Your task to perform on an android device: What's on the menu at Starbucks? Image 0: 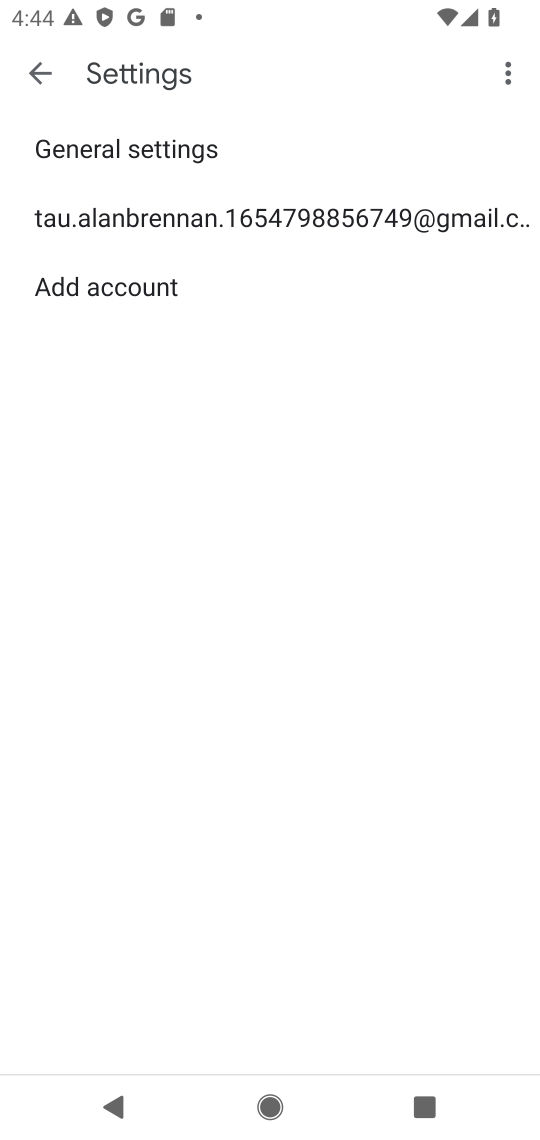
Step 0: press home button
Your task to perform on an android device: What's on the menu at Starbucks? Image 1: 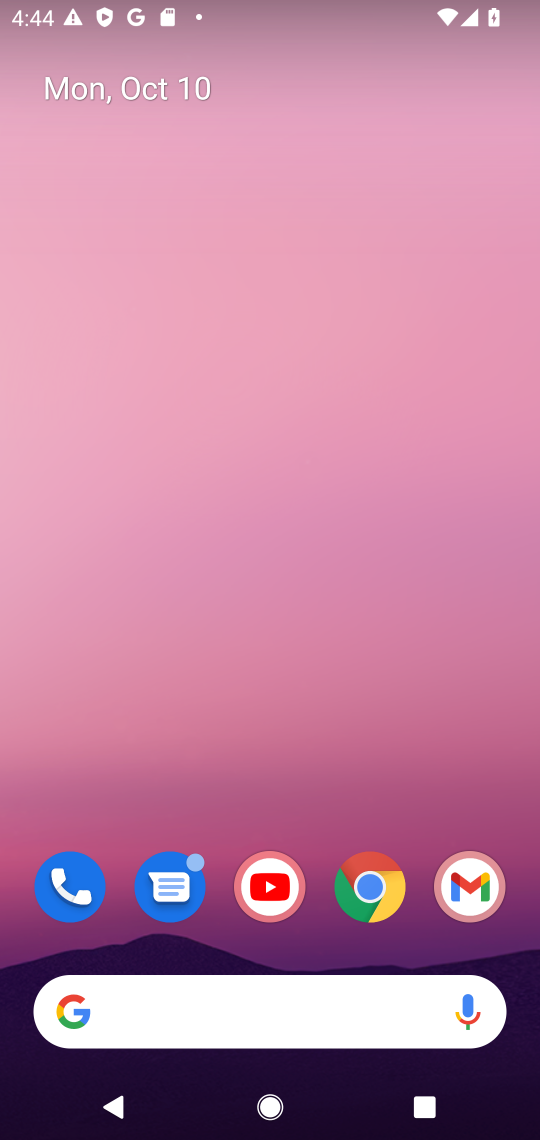
Step 1: click (369, 868)
Your task to perform on an android device: What's on the menu at Starbucks? Image 2: 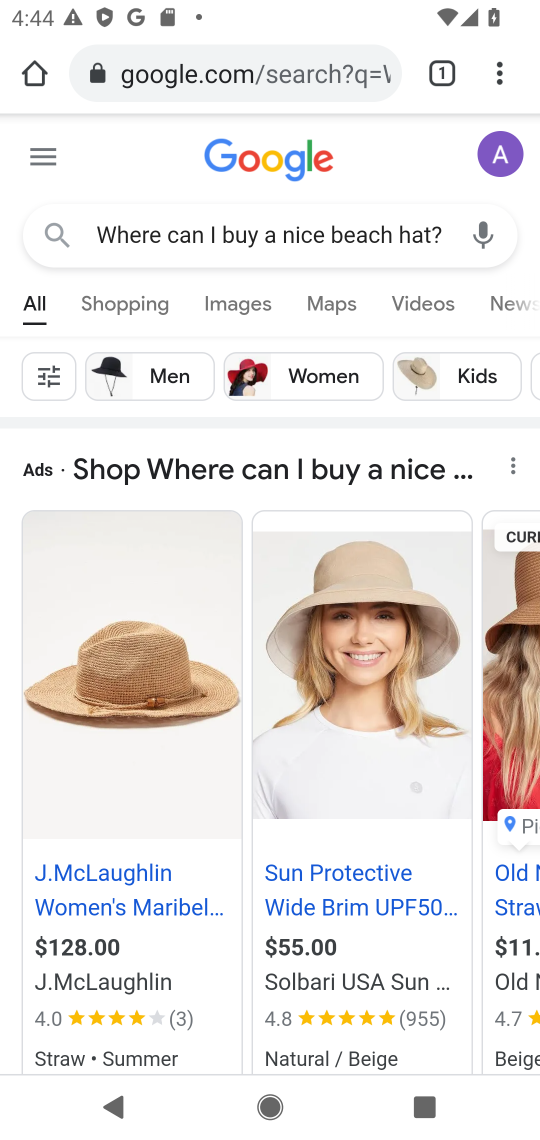
Step 2: click (281, 58)
Your task to perform on an android device: What's on the menu at Starbucks? Image 3: 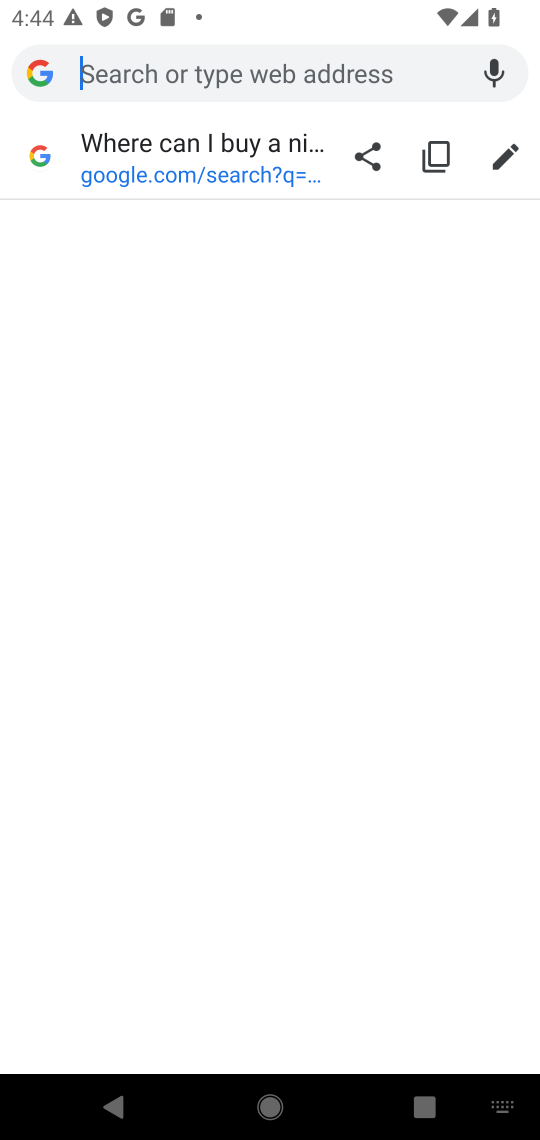
Step 3: type "What's on the menu at Starbucks ?"
Your task to perform on an android device: What's on the menu at Starbucks? Image 4: 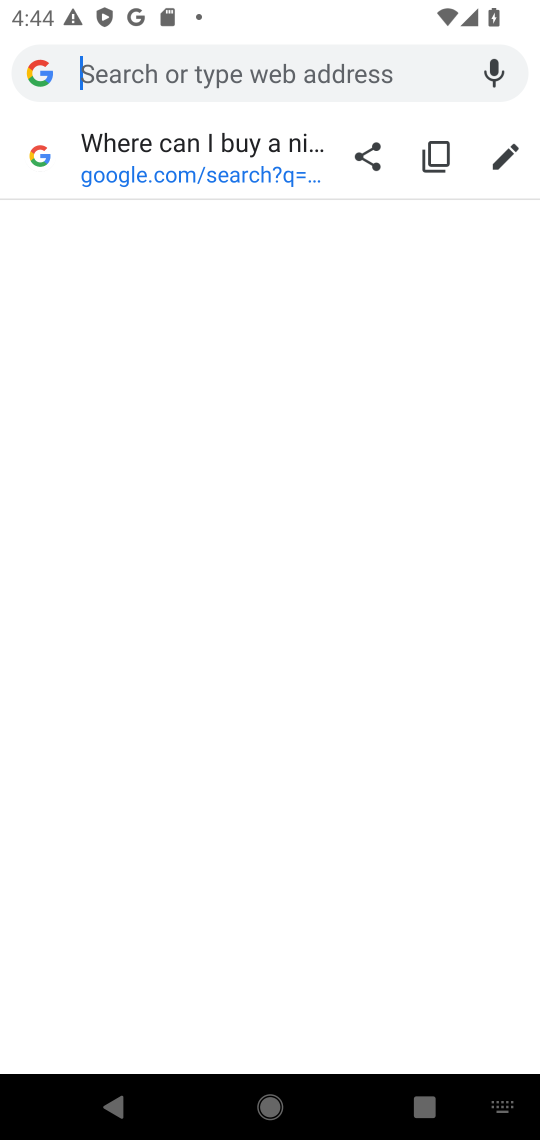
Step 4: click (288, 71)
Your task to perform on an android device: What's on the menu at Starbucks? Image 5: 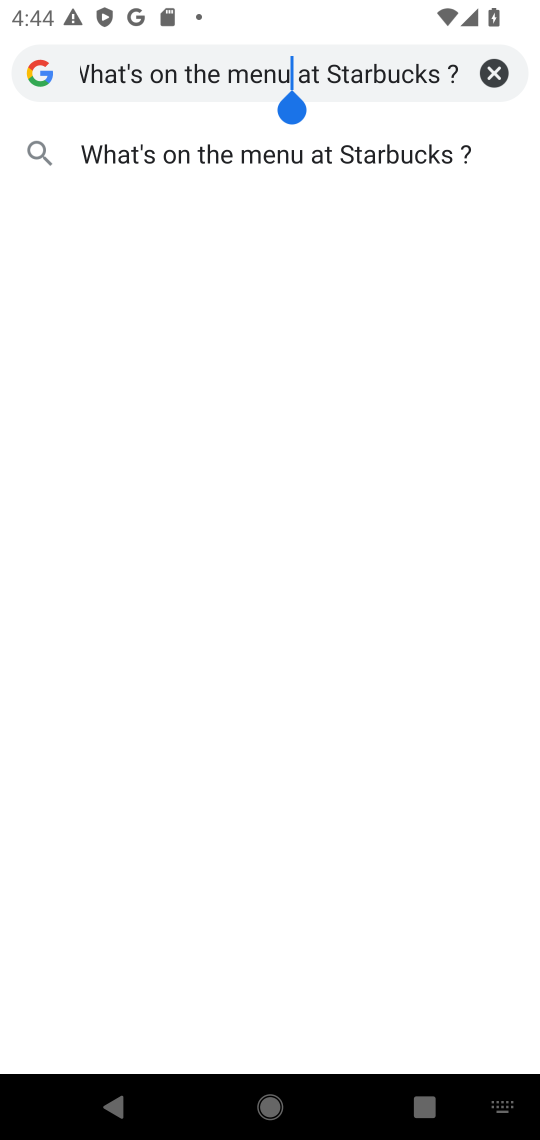
Step 5: click (414, 159)
Your task to perform on an android device: What's on the menu at Starbucks? Image 6: 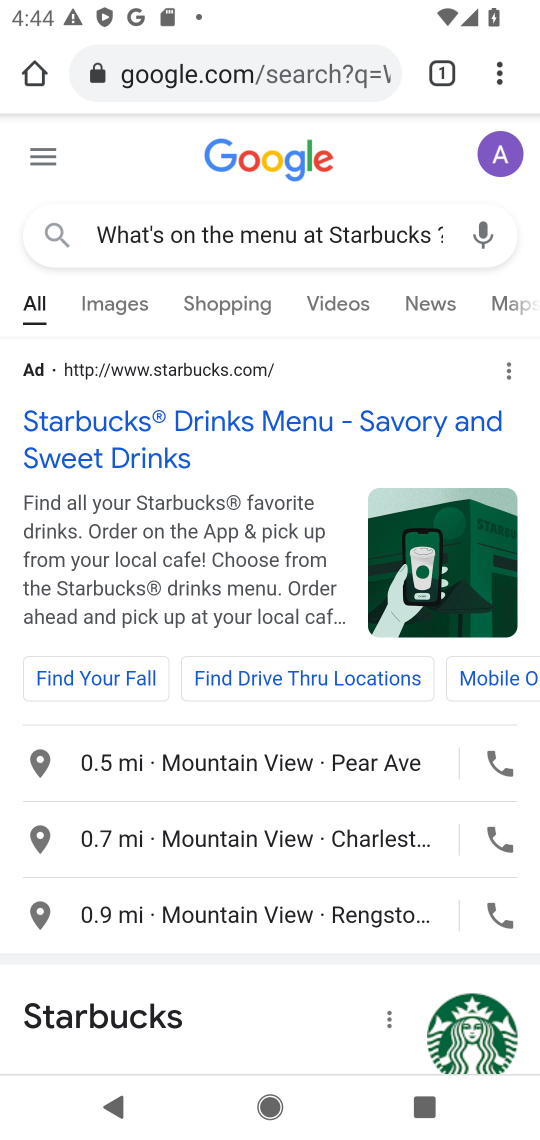
Step 6: click (178, 427)
Your task to perform on an android device: What's on the menu at Starbucks? Image 7: 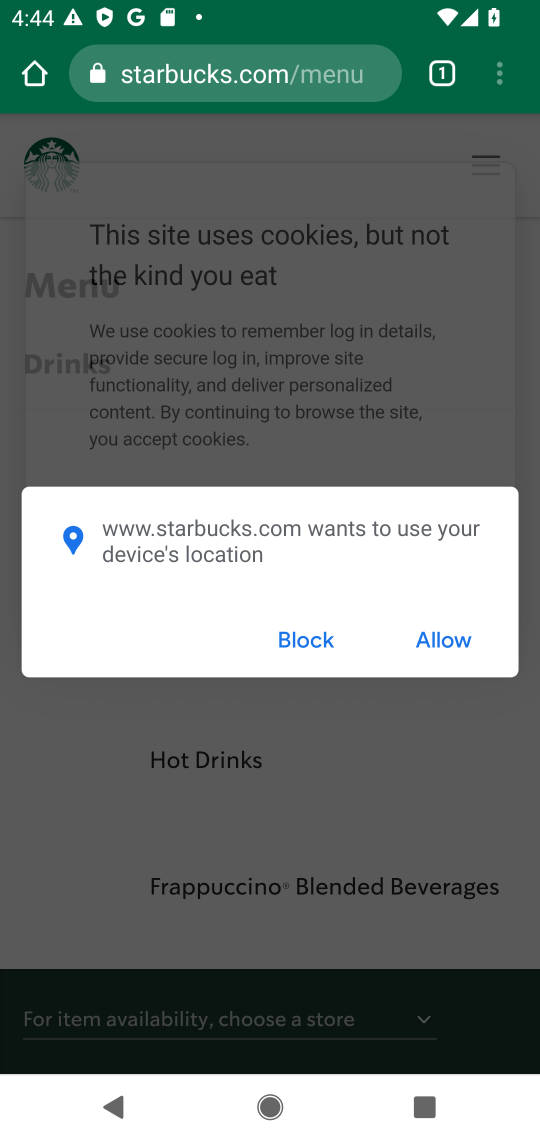
Step 7: click (452, 639)
Your task to perform on an android device: What's on the menu at Starbucks? Image 8: 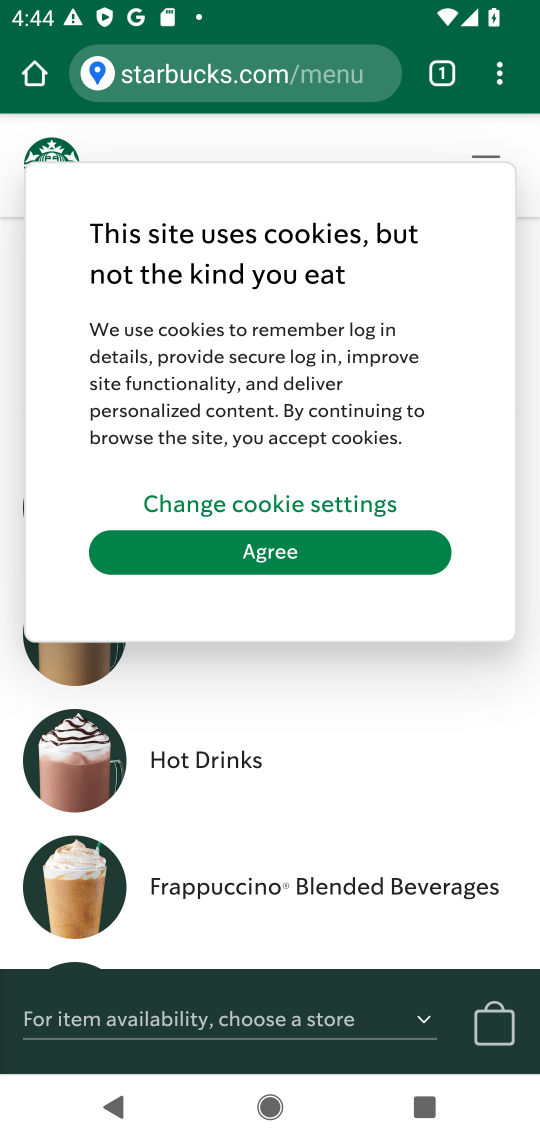
Step 8: click (349, 544)
Your task to perform on an android device: What's on the menu at Starbucks? Image 9: 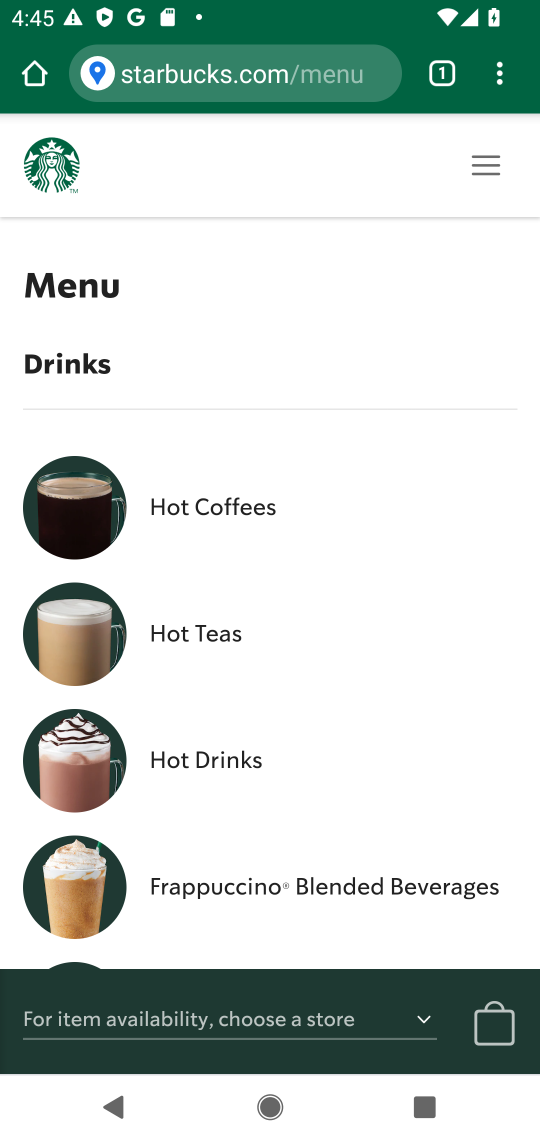
Step 9: drag from (369, 792) to (237, 415)
Your task to perform on an android device: What's on the menu at Starbucks? Image 10: 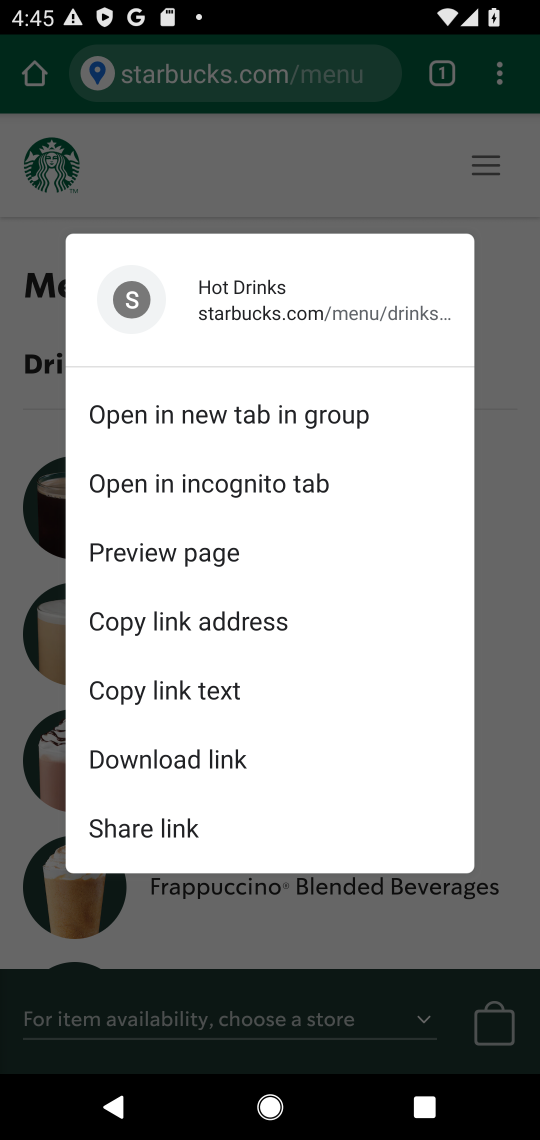
Step 10: click (5, 573)
Your task to perform on an android device: What's on the menu at Starbucks? Image 11: 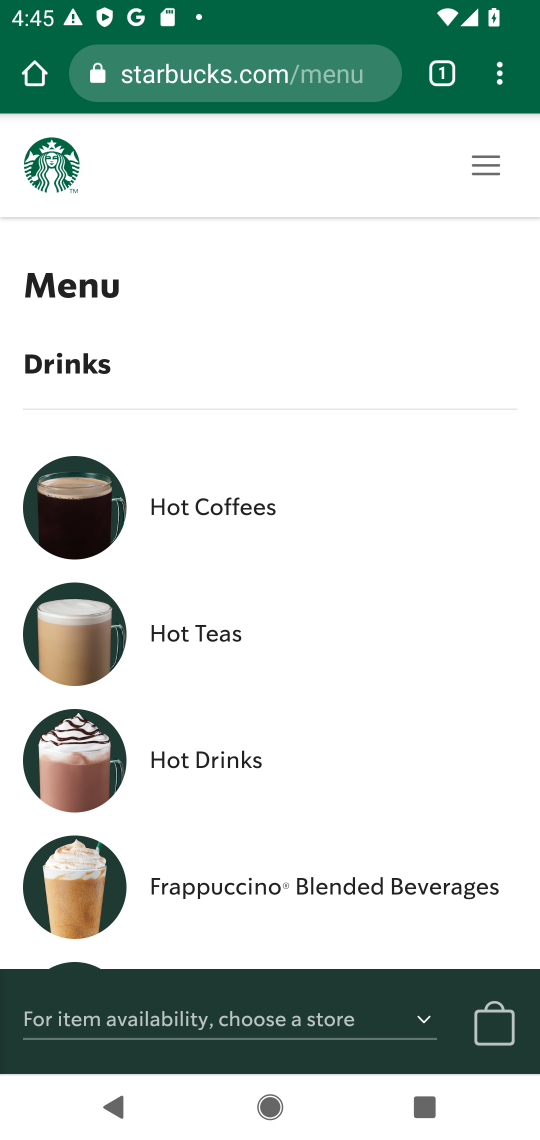
Step 11: drag from (449, 910) to (159, 251)
Your task to perform on an android device: What's on the menu at Starbucks? Image 12: 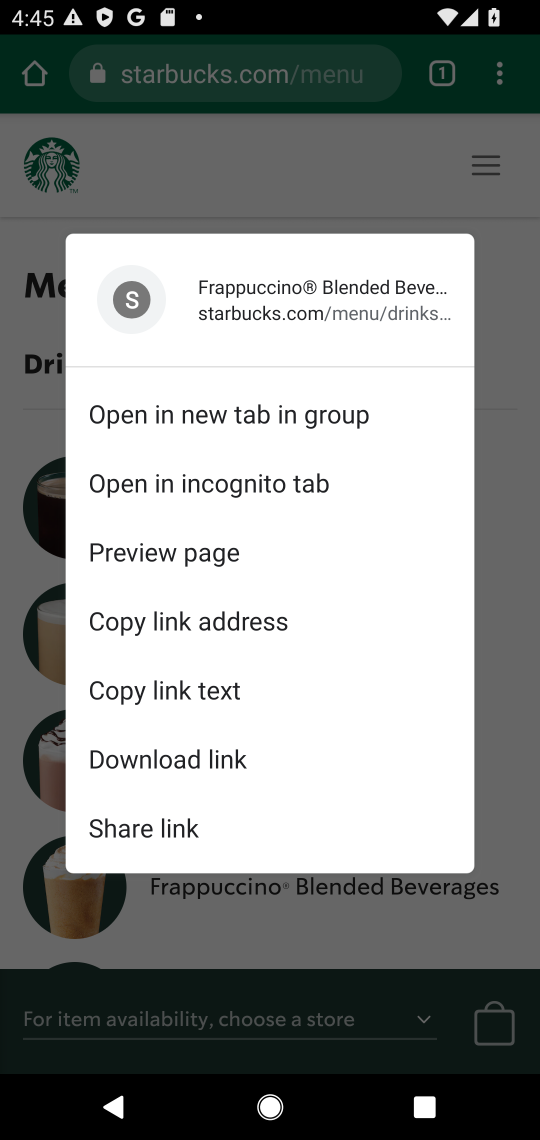
Step 12: click (159, 251)
Your task to perform on an android device: What's on the menu at Starbucks? Image 13: 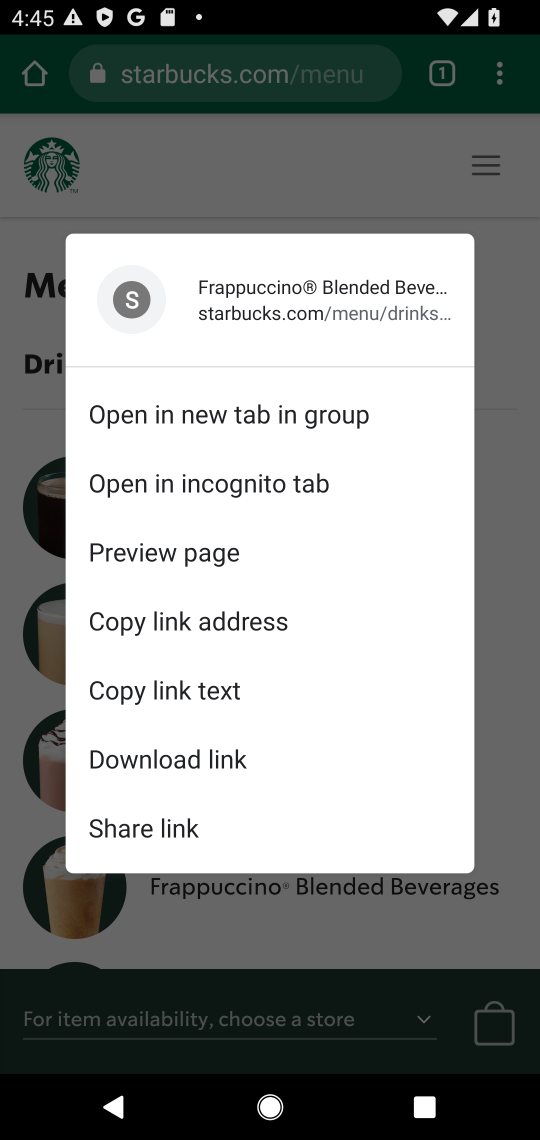
Step 13: click (517, 806)
Your task to perform on an android device: What's on the menu at Starbucks? Image 14: 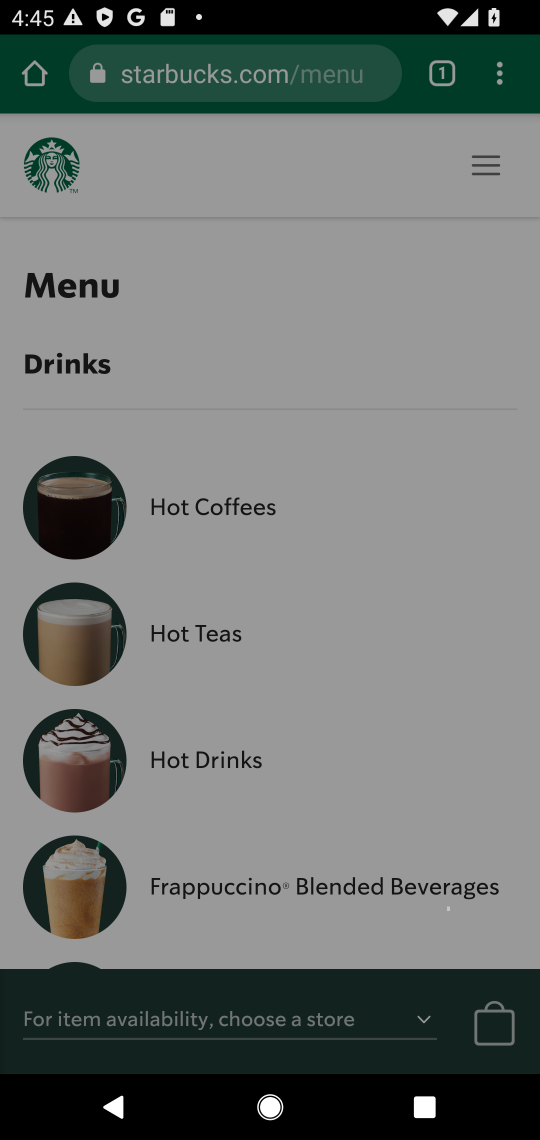
Step 14: click (466, 884)
Your task to perform on an android device: What's on the menu at Starbucks? Image 15: 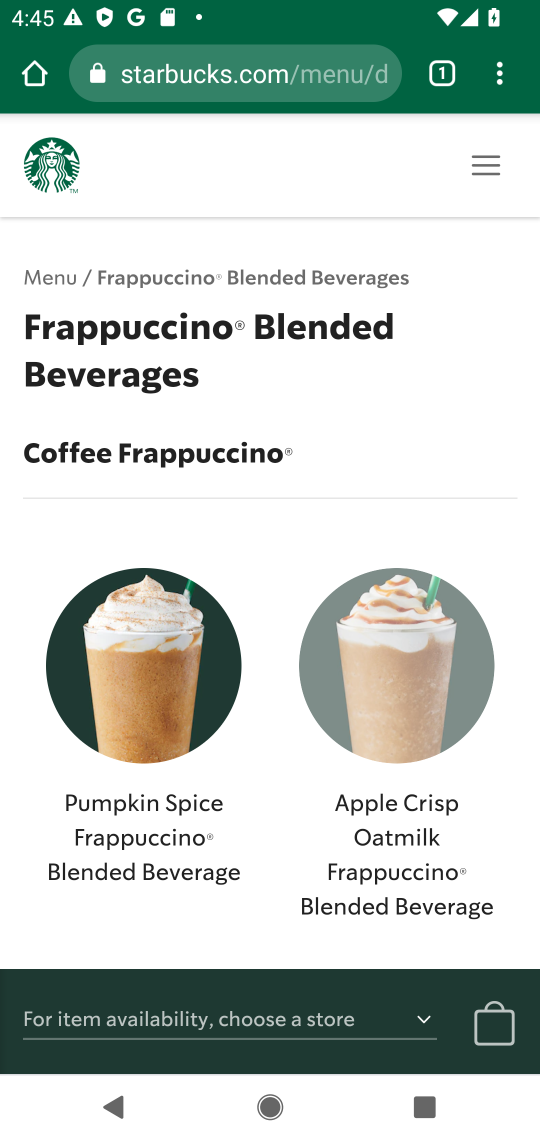
Step 15: click (414, 926)
Your task to perform on an android device: What's on the menu at Starbucks? Image 16: 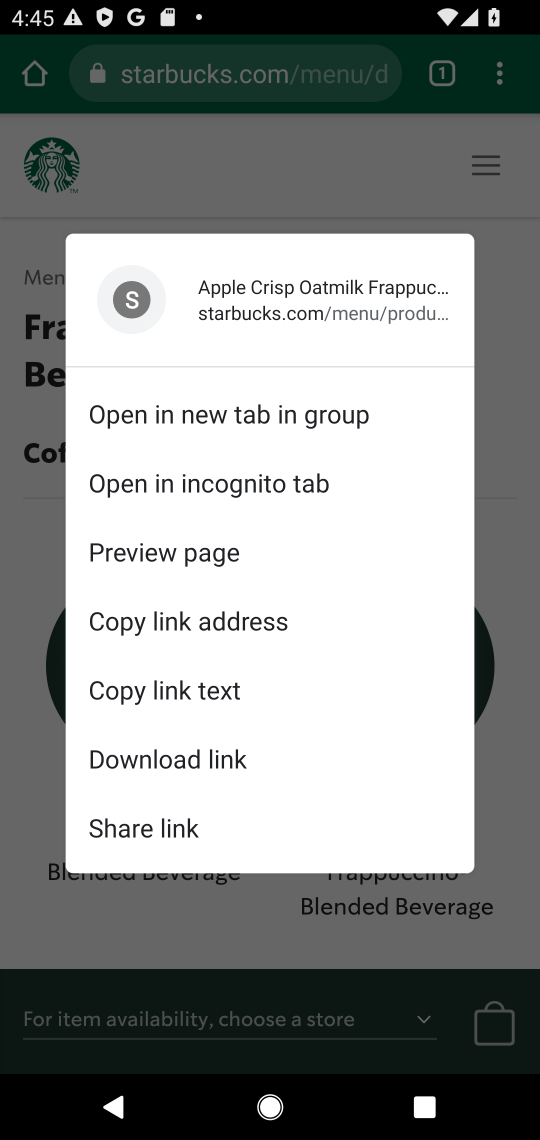
Step 16: task complete